Your task to perform on an android device: turn on the 24-hour format for clock Image 0: 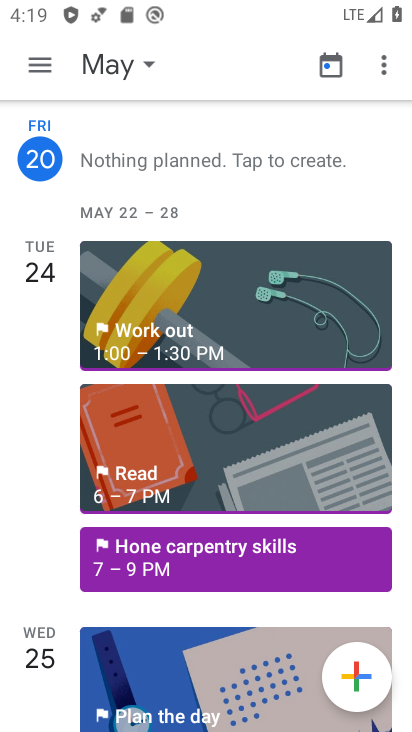
Step 0: click (258, 590)
Your task to perform on an android device: turn on the 24-hour format for clock Image 1: 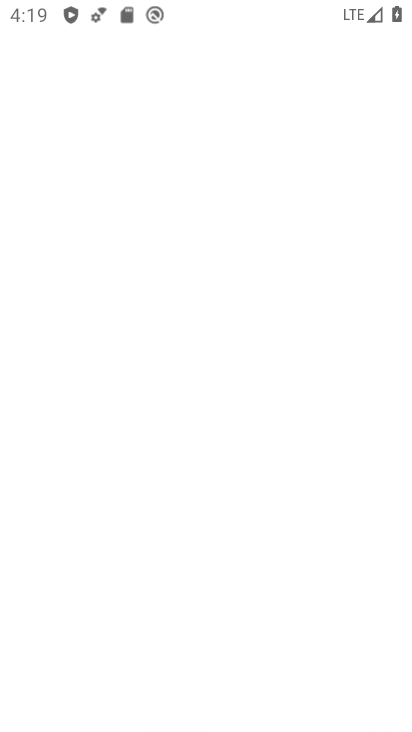
Step 1: press home button
Your task to perform on an android device: turn on the 24-hour format for clock Image 2: 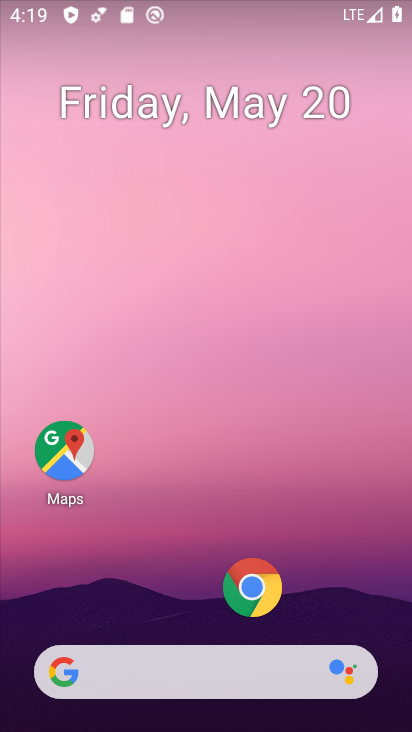
Step 2: drag from (193, 73) to (198, 22)
Your task to perform on an android device: turn on the 24-hour format for clock Image 3: 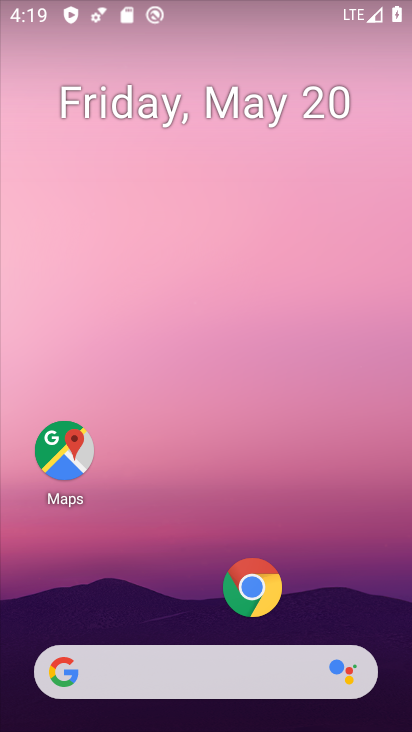
Step 3: drag from (155, 613) to (216, 168)
Your task to perform on an android device: turn on the 24-hour format for clock Image 4: 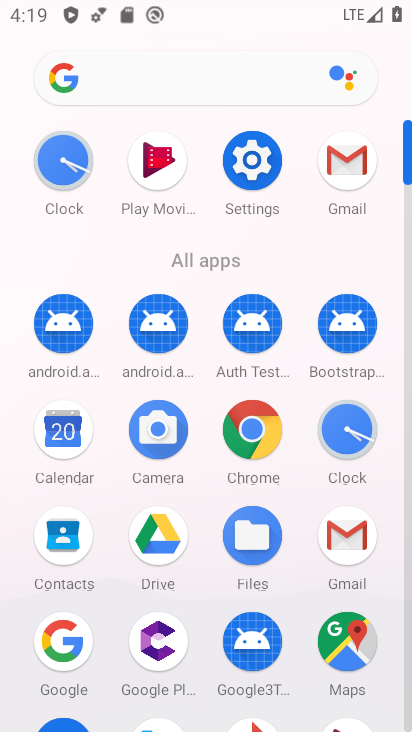
Step 4: click (344, 428)
Your task to perform on an android device: turn on the 24-hour format for clock Image 5: 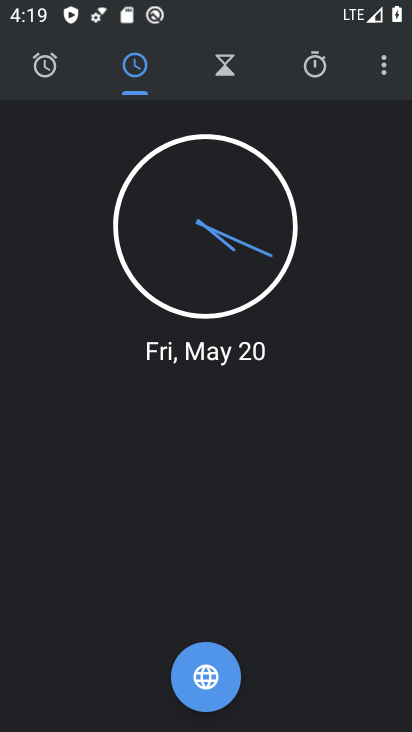
Step 5: click (393, 55)
Your task to perform on an android device: turn on the 24-hour format for clock Image 6: 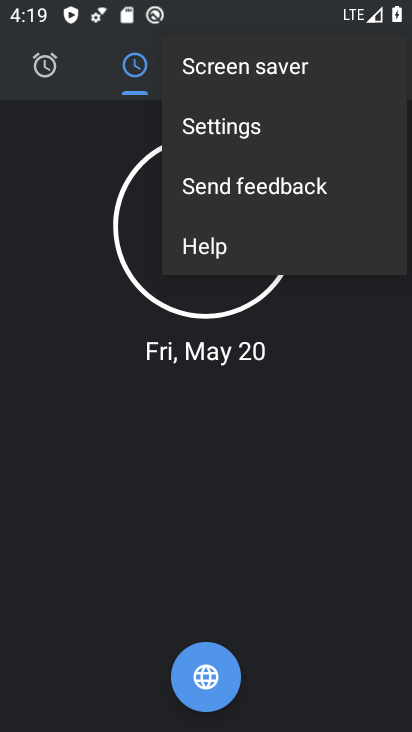
Step 6: click (246, 119)
Your task to perform on an android device: turn on the 24-hour format for clock Image 7: 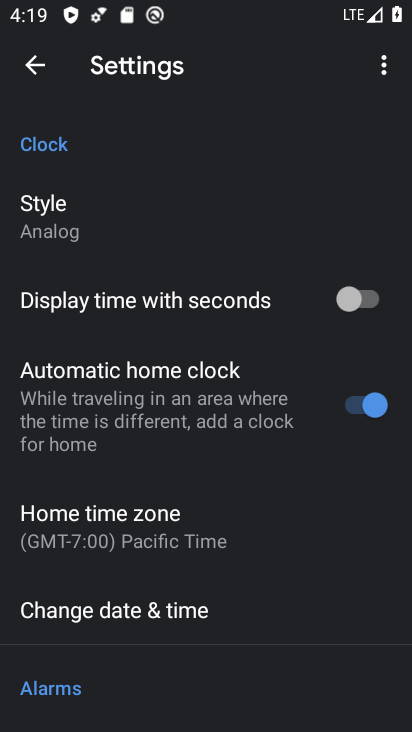
Step 7: drag from (162, 603) to (275, 219)
Your task to perform on an android device: turn on the 24-hour format for clock Image 8: 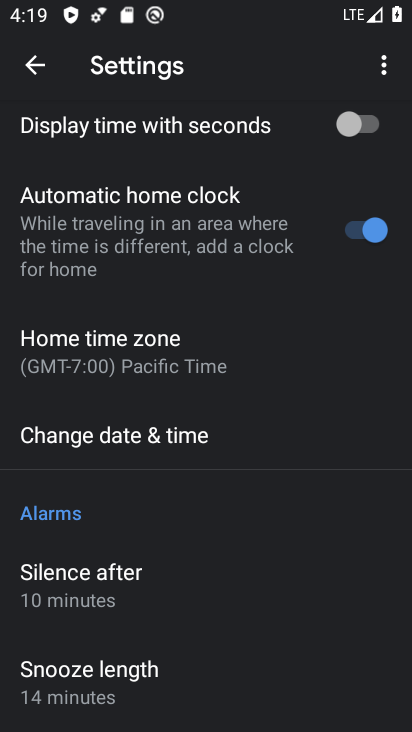
Step 8: click (153, 443)
Your task to perform on an android device: turn on the 24-hour format for clock Image 9: 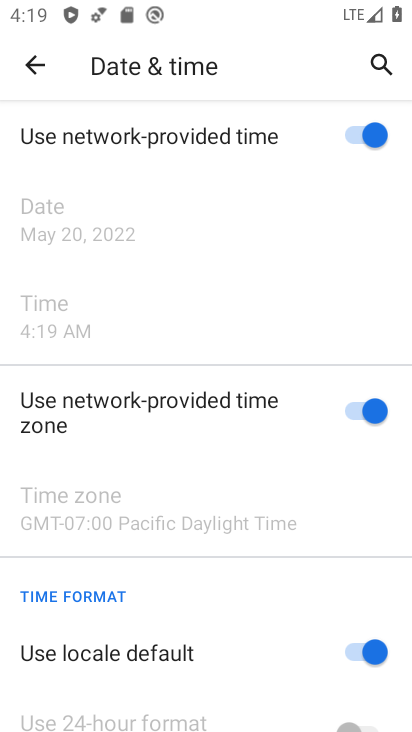
Step 9: click (360, 659)
Your task to perform on an android device: turn on the 24-hour format for clock Image 10: 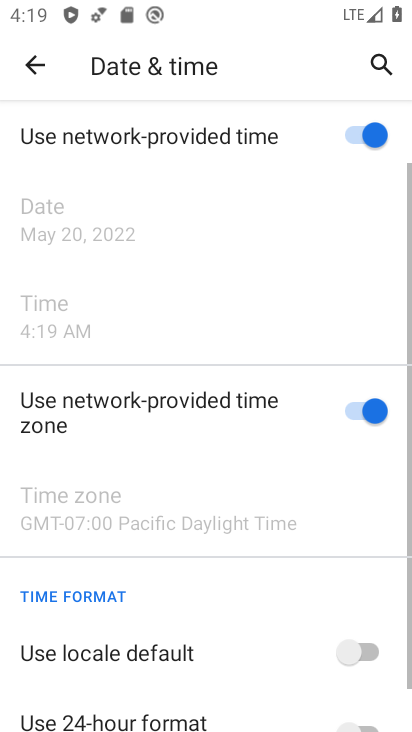
Step 10: drag from (223, 667) to (292, 256)
Your task to perform on an android device: turn on the 24-hour format for clock Image 11: 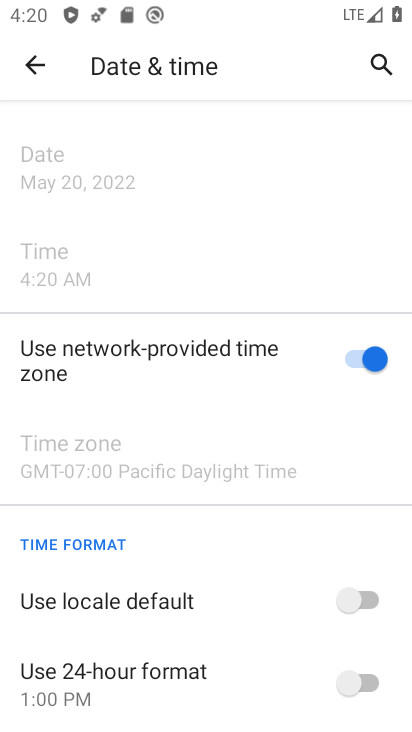
Step 11: click (373, 687)
Your task to perform on an android device: turn on the 24-hour format for clock Image 12: 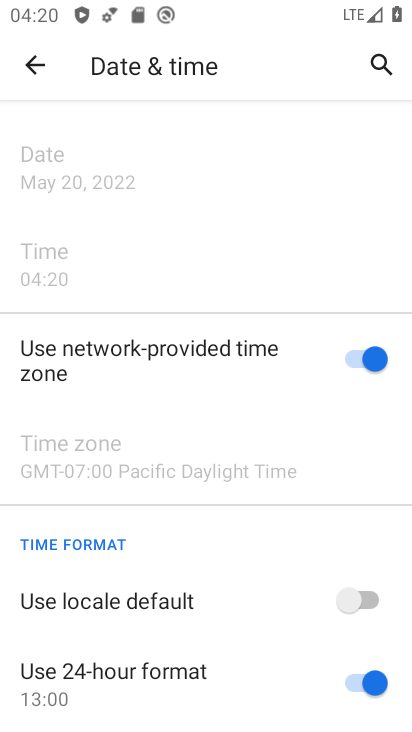
Step 12: task complete